Your task to perform on an android device: open a new tab in the chrome app Image 0: 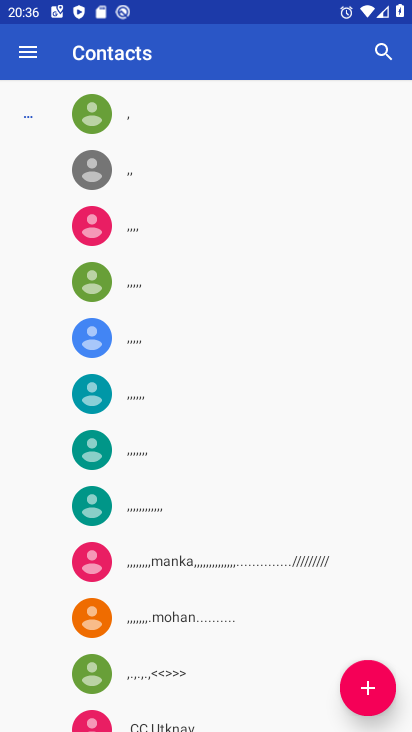
Step 0: press home button
Your task to perform on an android device: open a new tab in the chrome app Image 1: 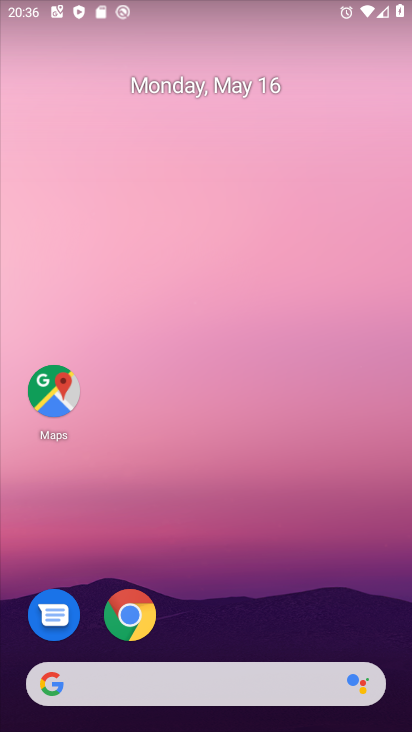
Step 1: click (138, 611)
Your task to perform on an android device: open a new tab in the chrome app Image 2: 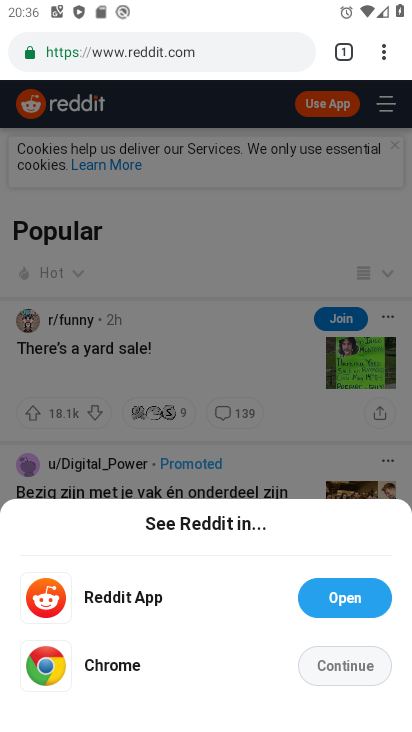
Step 2: click (351, 54)
Your task to perform on an android device: open a new tab in the chrome app Image 3: 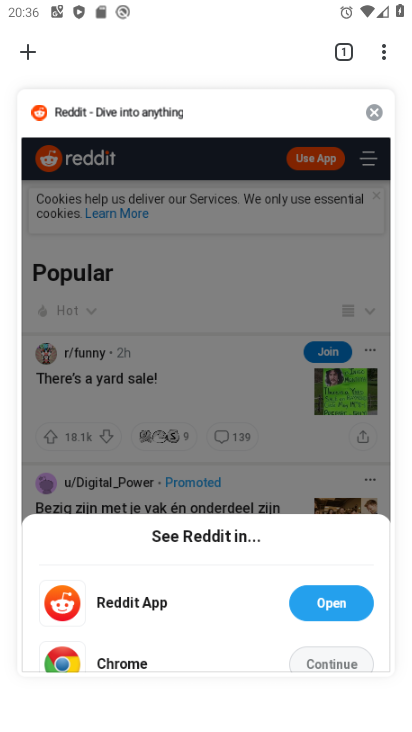
Step 3: click (27, 61)
Your task to perform on an android device: open a new tab in the chrome app Image 4: 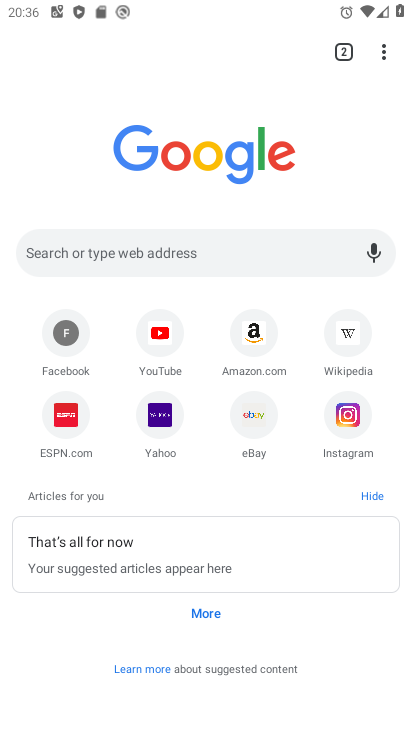
Step 4: task complete